Your task to perform on an android device: What's on my calendar today? Image 0: 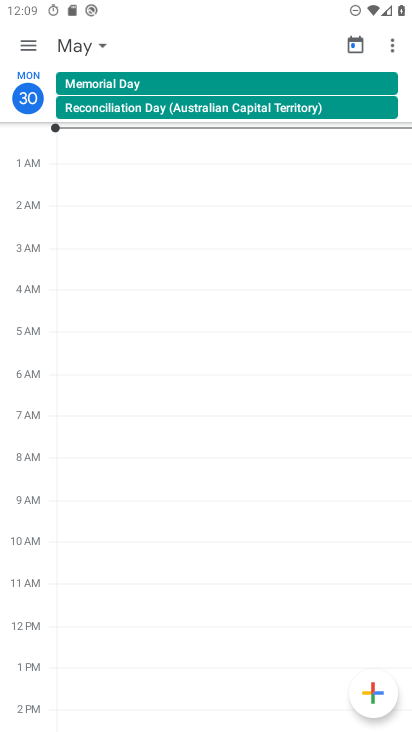
Step 0: press home button
Your task to perform on an android device: What's on my calendar today? Image 1: 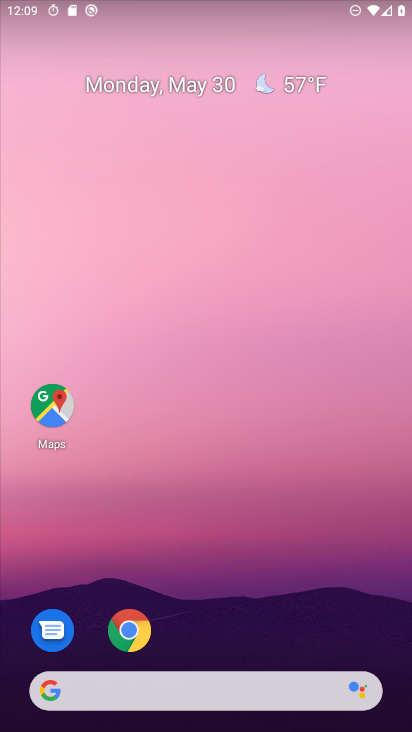
Step 1: drag from (237, 629) to (197, 137)
Your task to perform on an android device: What's on my calendar today? Image 2: 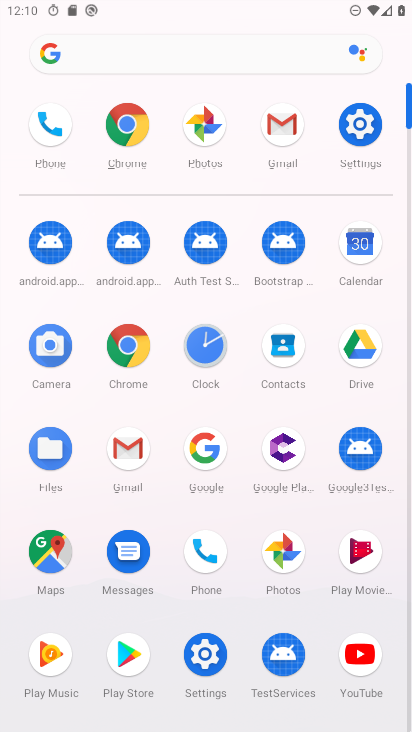
Step 2: click (360, 245)
Your task to perform on an android device: What's on my calendar today? Image 3: 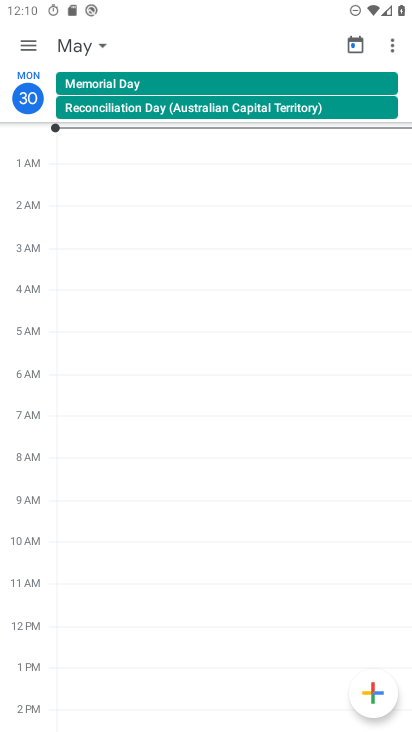
Step 3: click (28, 49)
Your task to perform on an android device: What's on my calendar today? Image 4: 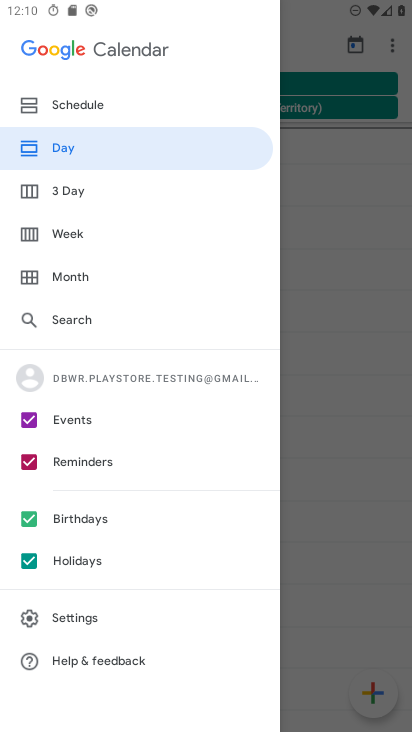
Step 4: click (85, 102)
Your task to perform on an android device: What's on my calendar today? Image 5: 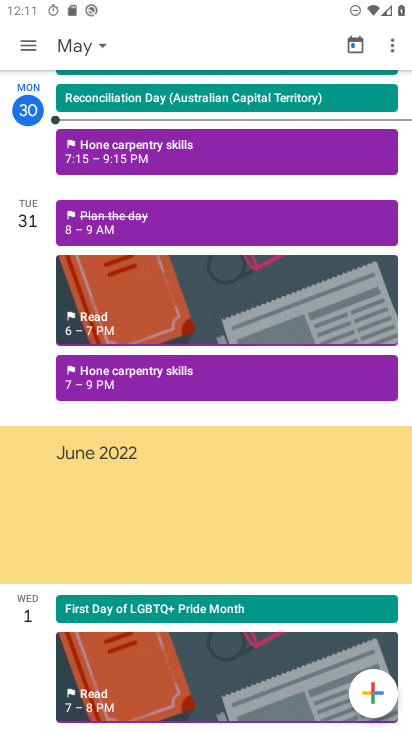
Step 5: task complete